Your task to perform on an android device: Add acer nitro to the cart on walmart Image 0: 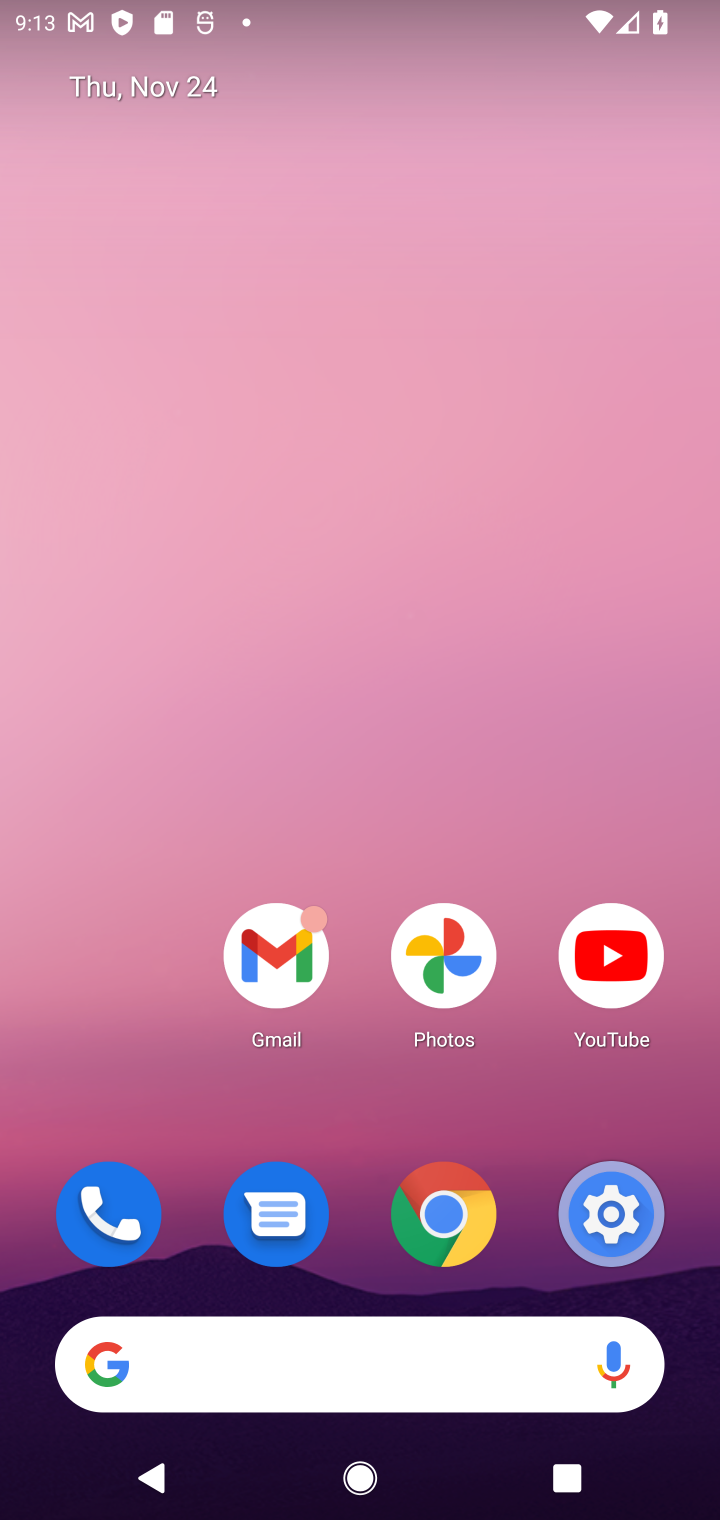
Step 0: click (240, 1328)
Your task to perform on an android device: Add acer nitro to the cart on walmart Image 1: 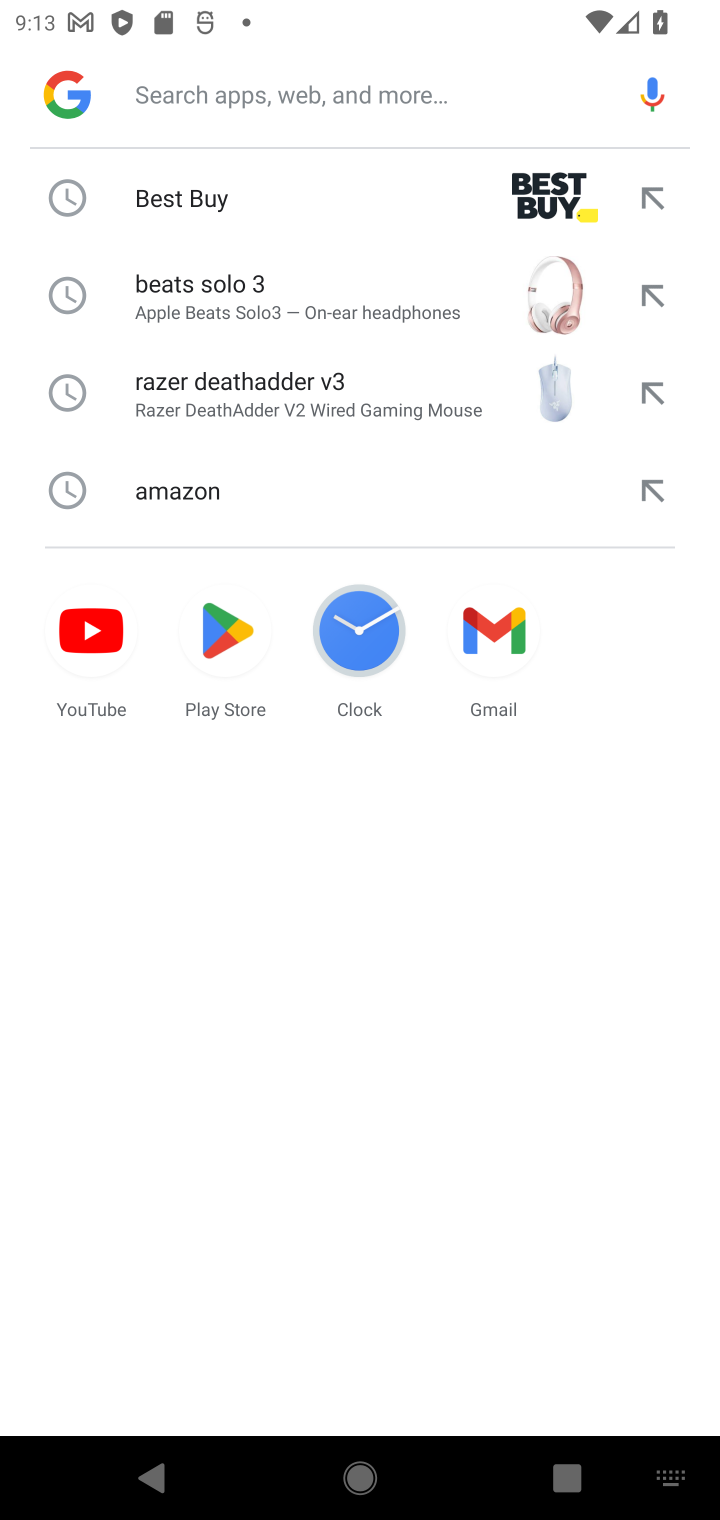
Step 1: type "walmart"
Your task to perform on an android device: Add acer nitro to the cart on walmart Image 2: 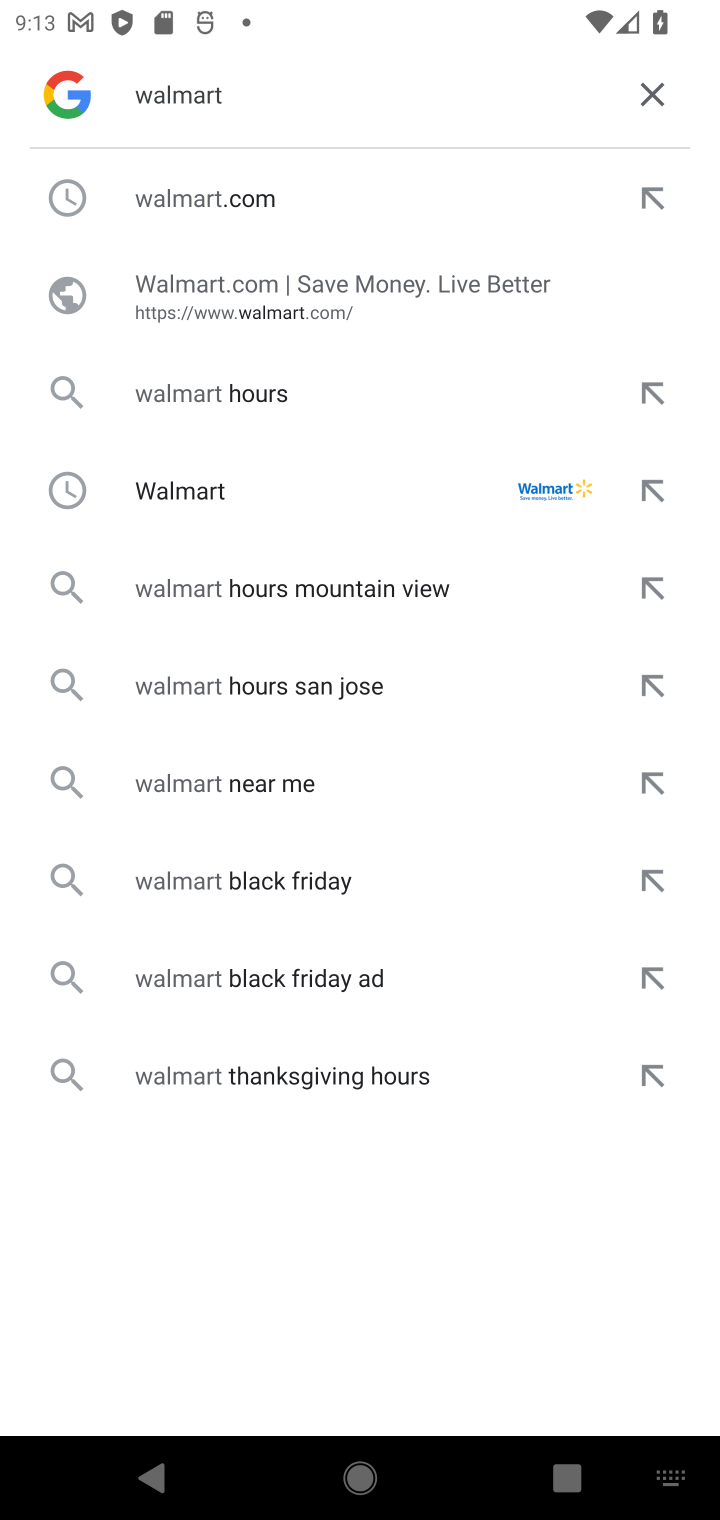
Step 2: click (319, 193)
Your task to perform on an android device: Add acer nitro to the cart on walmart Image 3: 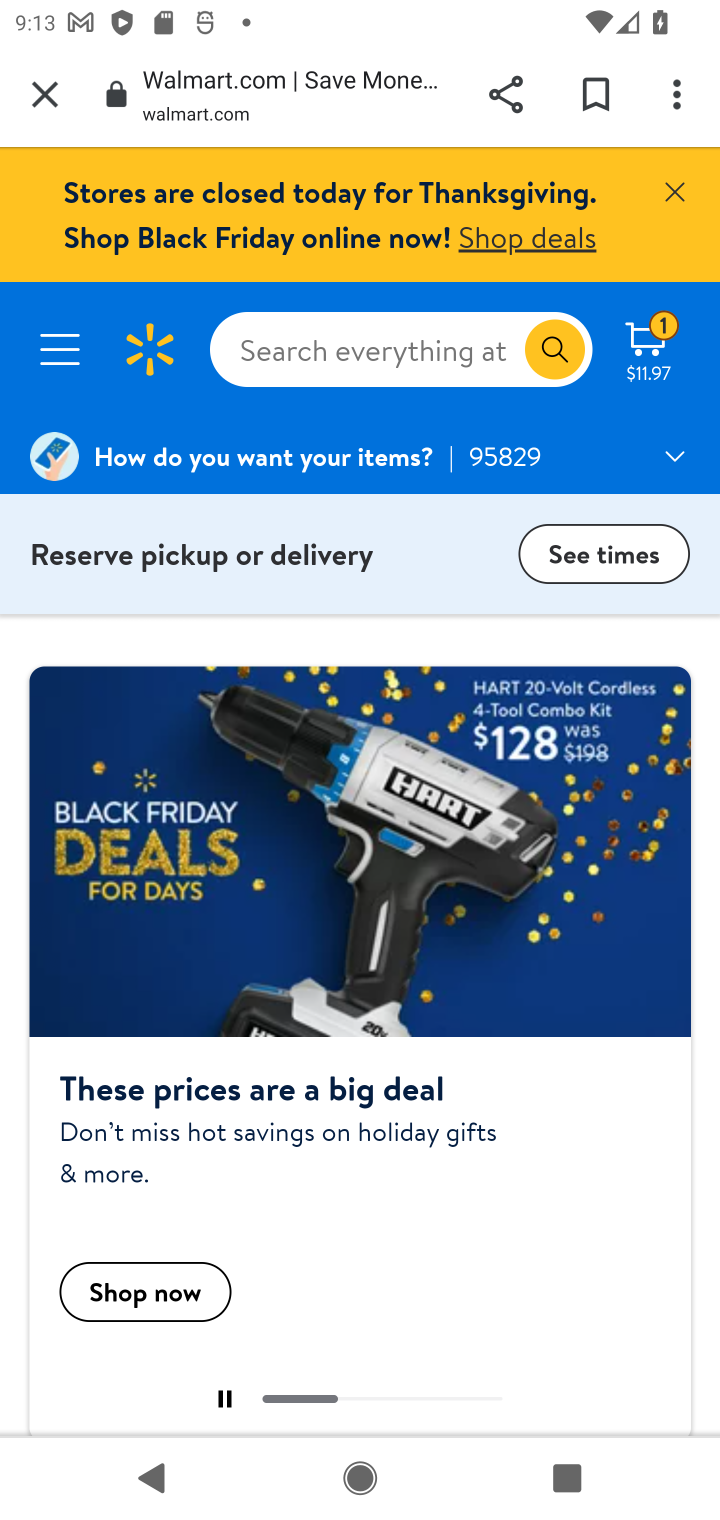
Step 3: click (351, 382)
Your task to perform on an android device: Add acer nitro to the cart on walmart Image 4: 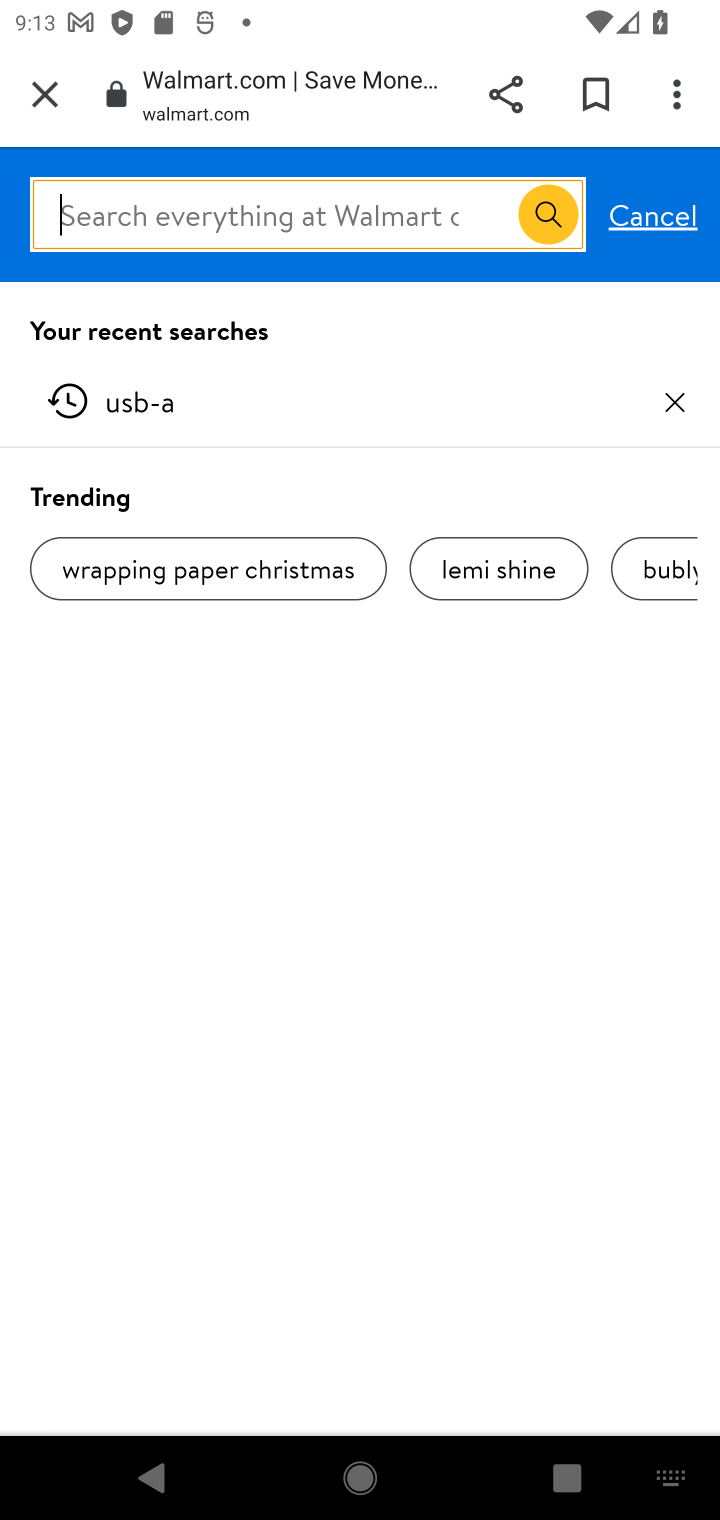
Step 4: type "acer nitro"
Your task to perform on an android device: Add acer nitro to the cart on walmart Image 5: 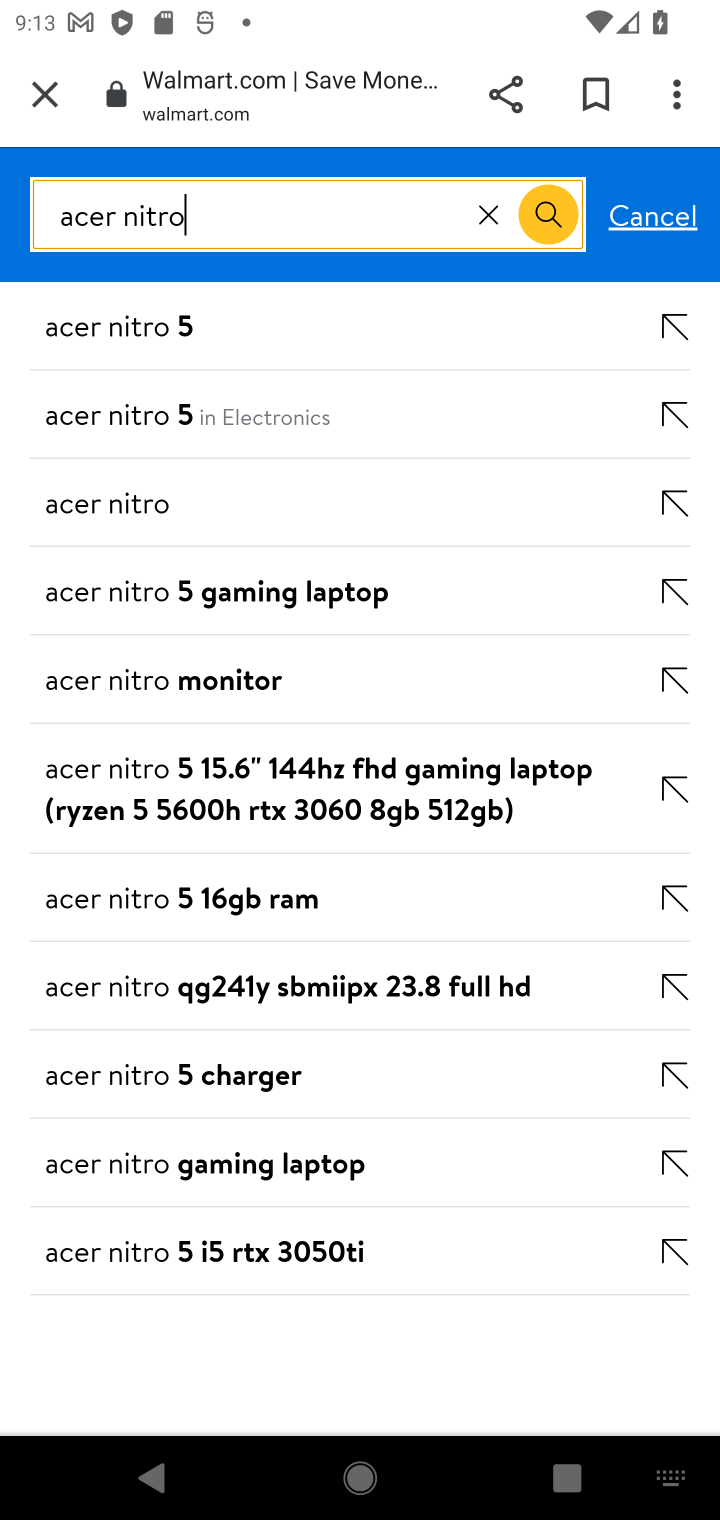
Step 5: click (198, 380)
Your task to perform on an android device: Add acer nitro to the cart on walmart Image 6: 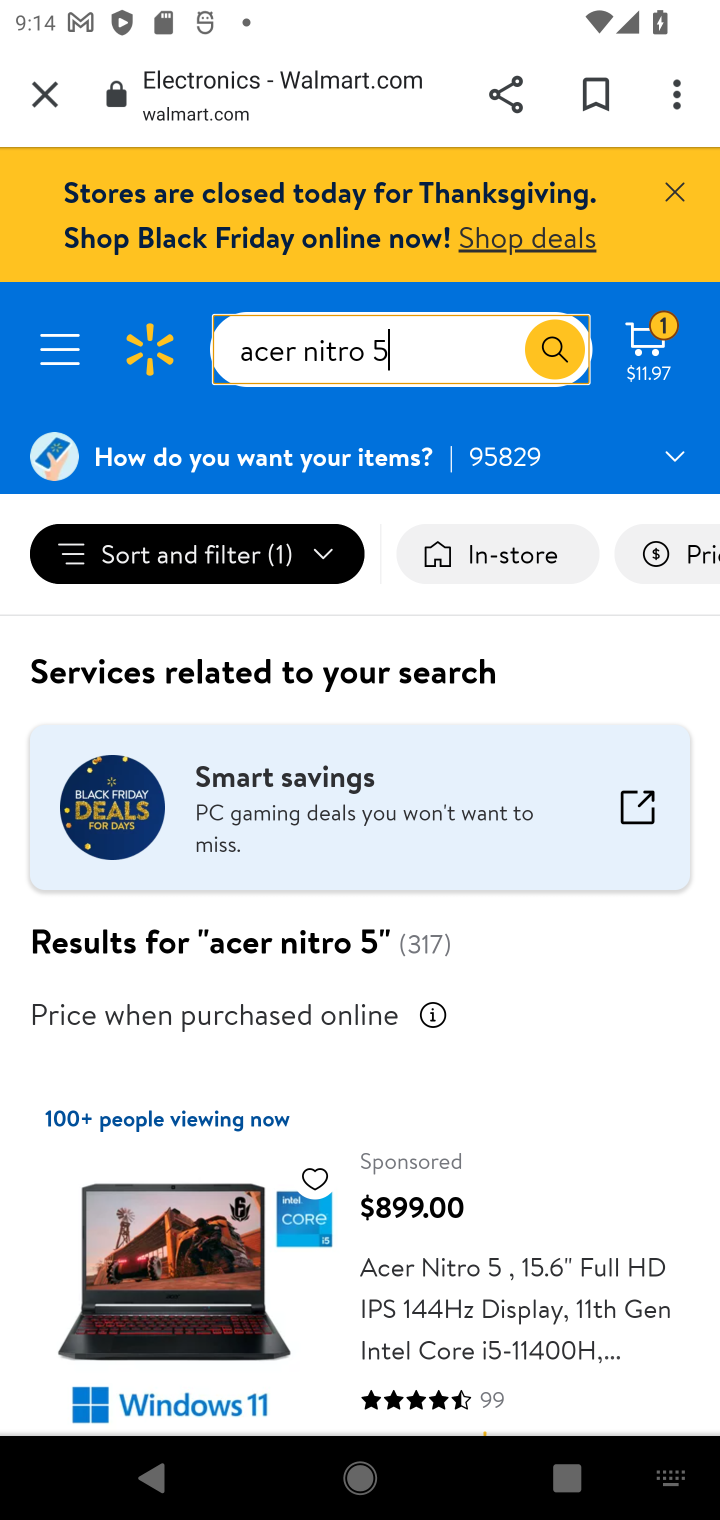
Step 6: task complete